Your task to perform on an android device: Open the stopwatch Image 0: 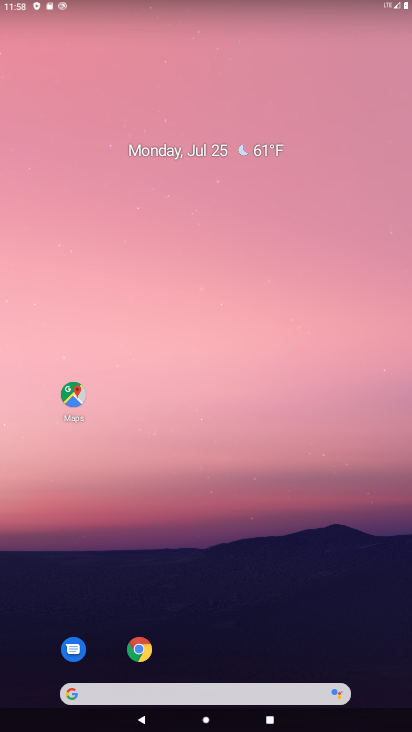
Step 0: drag from (236, 660) to (172, 146)
Your task to perform on an android device: Open the stopwatch Image 1: 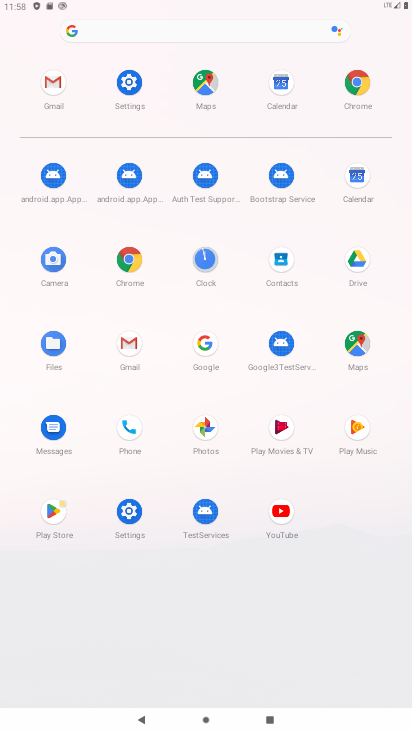
Step 1: click (120, 77)
Your task to perform on an android device: Open the stopwatch Image 2: 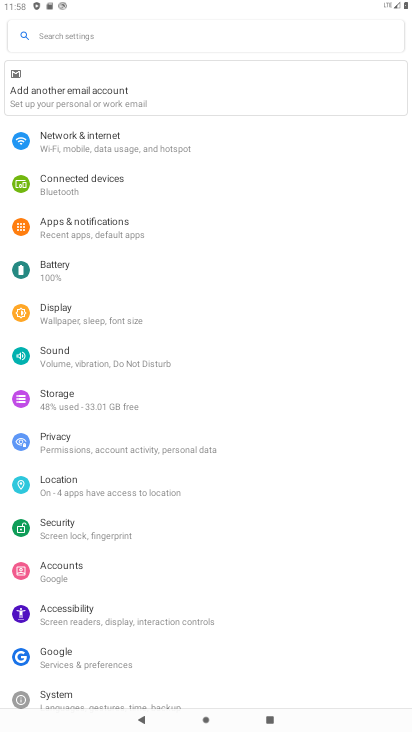
Step 2: press home button
Your task to perform on an android device: Open the stopwatch Image 3: 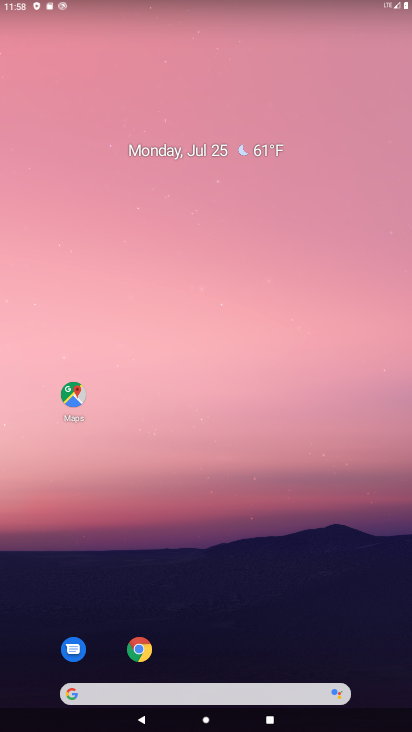
Step 3: drag from (229, 677) to (136, 176)
Your task to perform on an android device: Open the stopwatch Image 4: 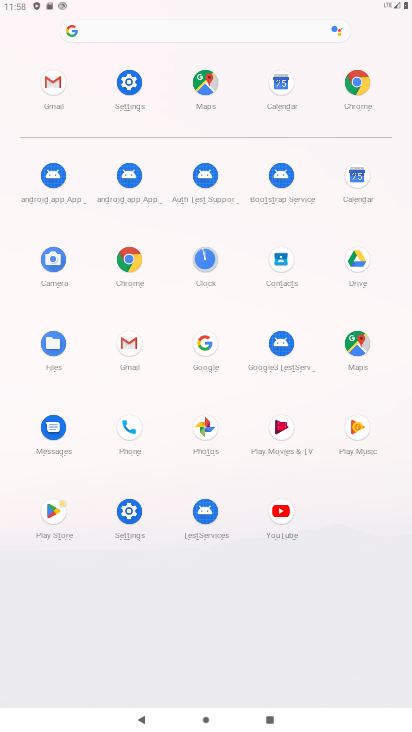
Step 4: click (215, 270)
Your task to perform on an android device: Open the stopwatch Image 5: 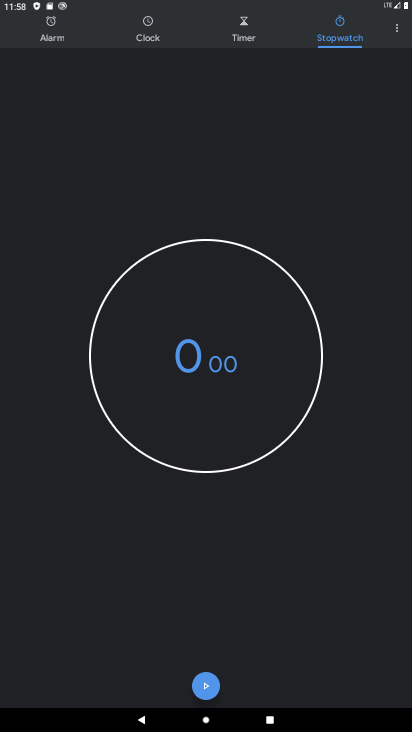
Step 5: click (218, 684)
Your task to perform on an android device: Open the stopwatch Image 6: 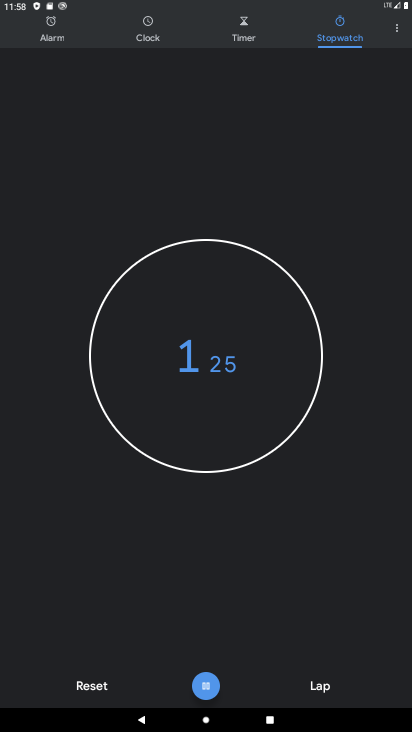
Step 6: click (218, 684)
Your task to perform on an android device: Open the stopwatch Image 7: 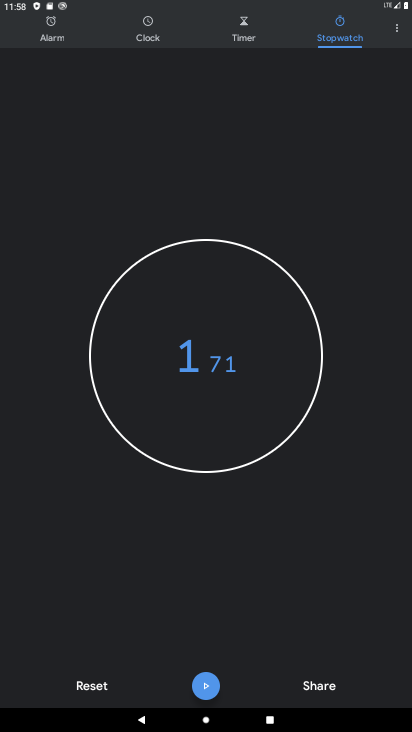
Step 7: task complete